Your task to perform on an android device: turn off notifications settings in the gmail app Image 0: 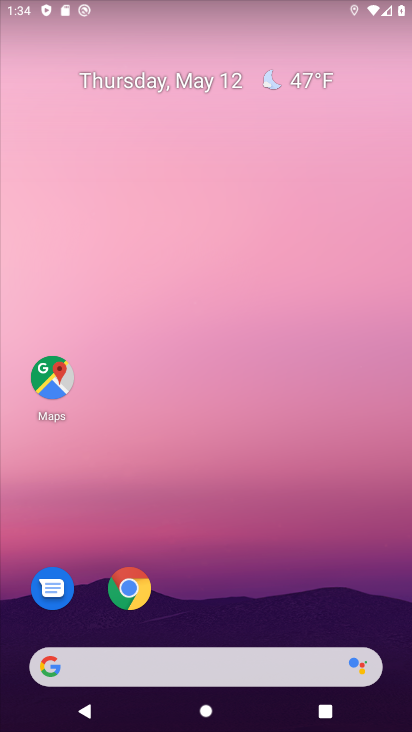
Step 0: drag from (388, 642) to (324, 44)
Your task to perform on an android device: turn off notifications settings in the gmail app Image 1: 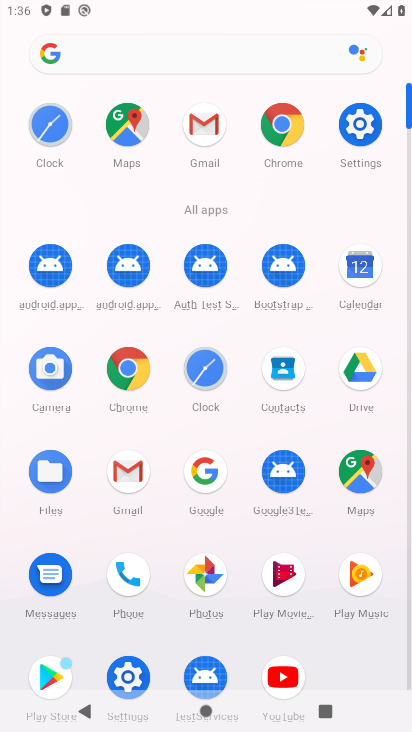
Step 1: click (120, 471)
Your task to perform on an android device: turn off notifications settings in the gmail app Image 2: 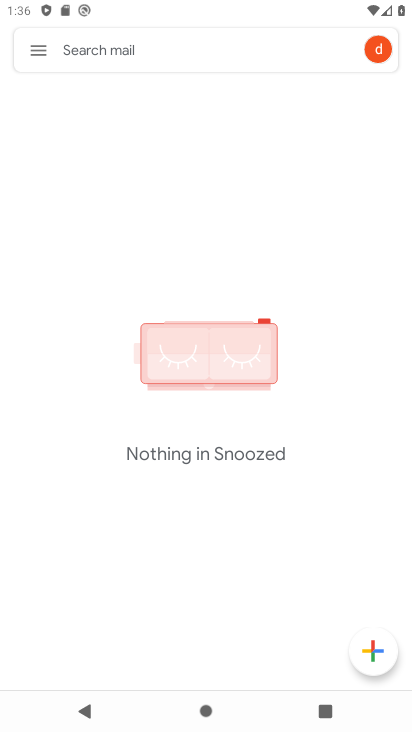
Step 2: click (41, 53)
Your task to perform on an android device: turn off notifications settings in the gmail app Image 3: 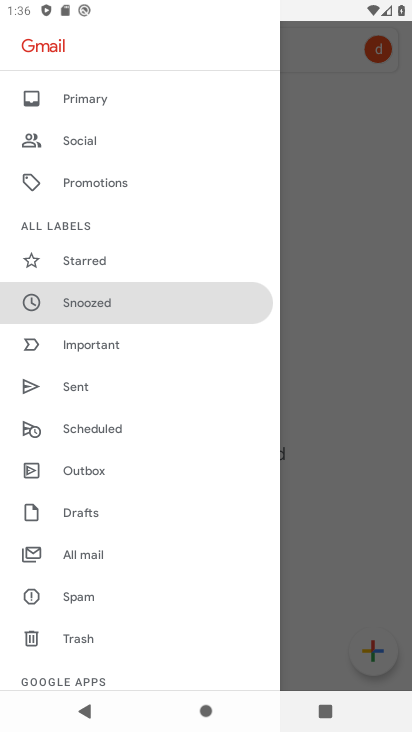
Step 3: drag from (158, 617) to (206, 215)
Your task to perform on an android device: turn off notifications settings in the gmail app Image 4: 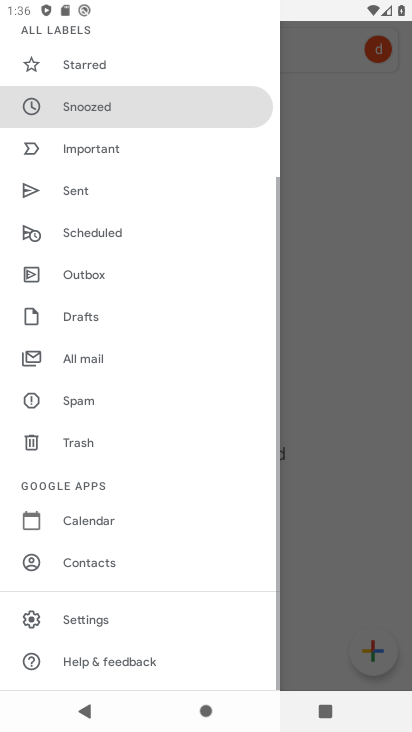
Step 4: drag from (101, 642) to (159, 270)
Your task to perform on an android device: turn off notifications settings in the gmail app Image 5: 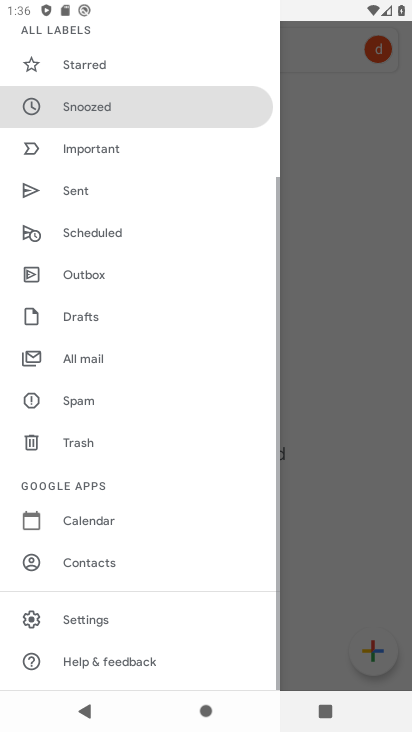
Step 5: click (125, 614)
Your task to perform on an android device: turn off notifications settings in the gmail app Image 6: 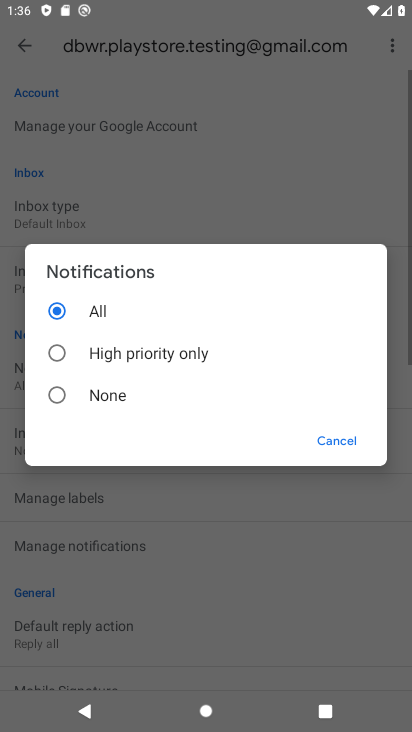
Step 6: click (75, 404)
Your task to perform on an android device: turn off notifications settings in the gmail app Image 7: 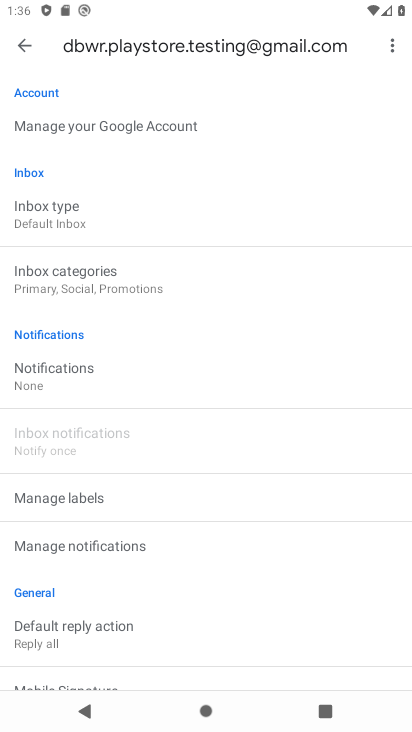
Step 7: task complete